Your task to perform on an android device: Go to battery settings Image 0: 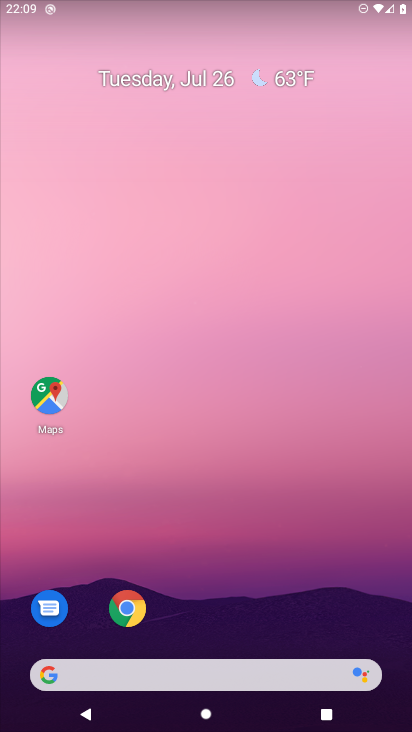
Step 0: drag from (58, 675) to (201, 321)
Your task to perform on an android device: Go to battery settings Image 1: 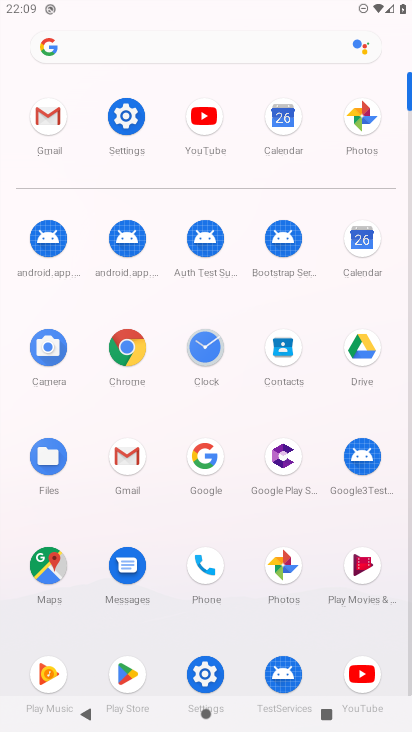
Step 1: click (207, 671)
Your task to perform on an android device: Go to battery settings Image 2: 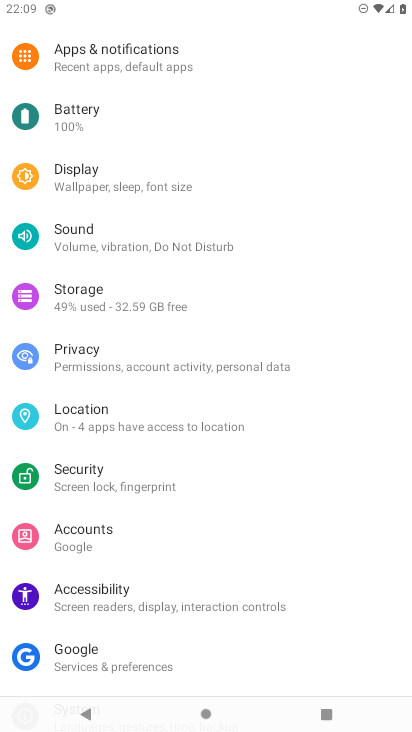
Step 2: click (98, 118)
Your task to perform on an android device: Go to battery settings Image 3: 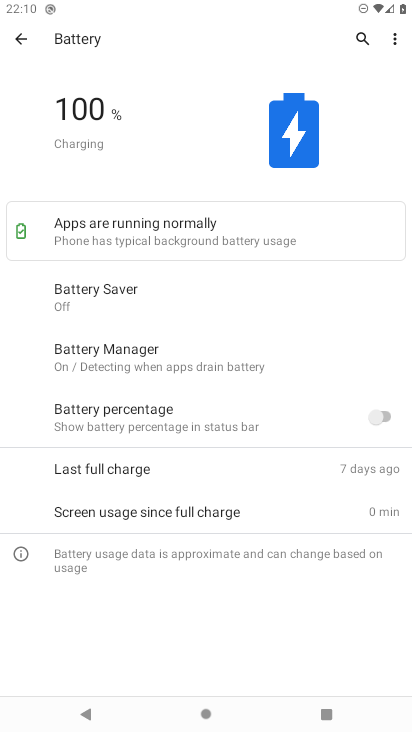
Step 3: task complete